Your task to perform on an android device: Go to Google Image 0: 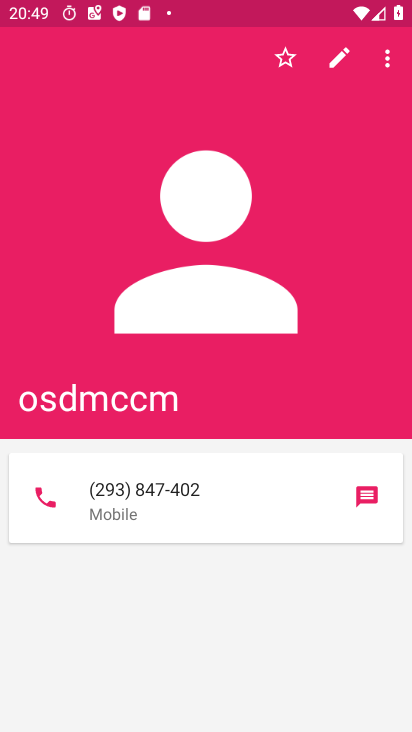
Step 0: press home button
Your task to perform on an android device: Go to Google Image 1: 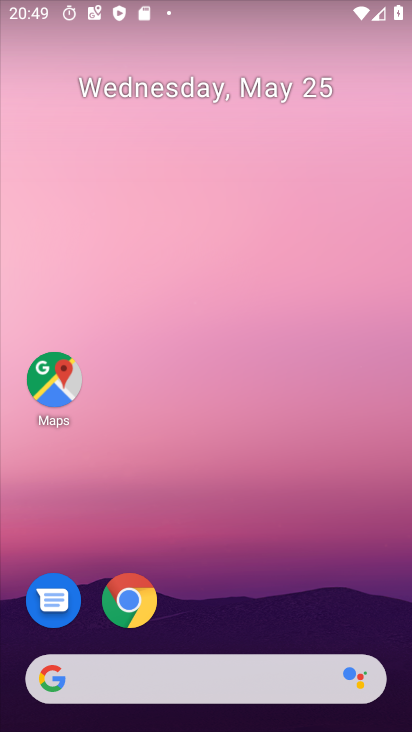
Step 1: drag from (327, 606) to (326, 139)
Your task to perform on an android device: Go to Google Image 2: 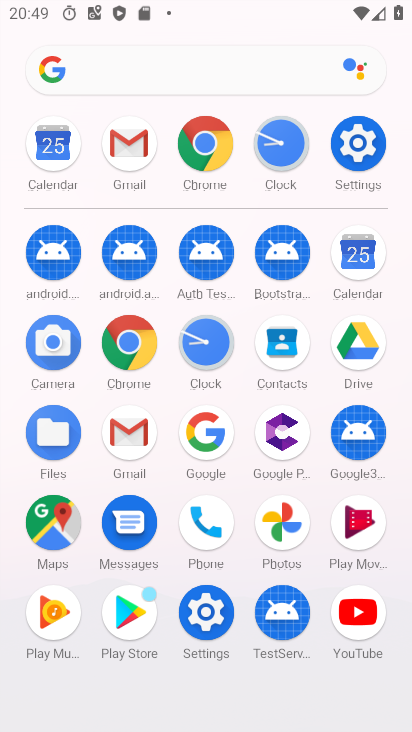
Step 2: click (205, 440)
Your task to perform on an android device: Go to Google Image 3: 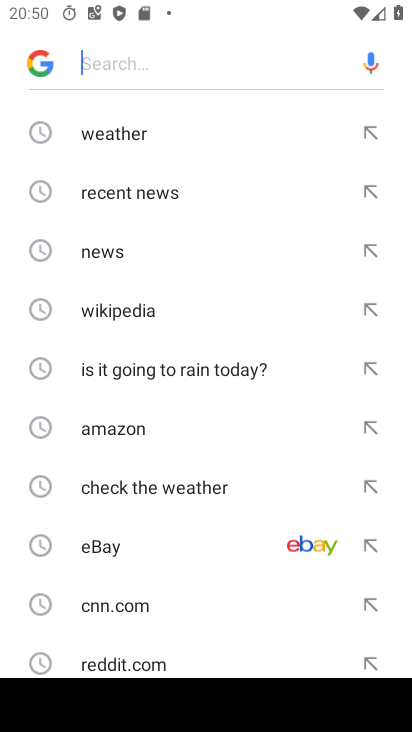
Step 3: task complete